Your task to perform on an android device: Go to location settings Image 0: 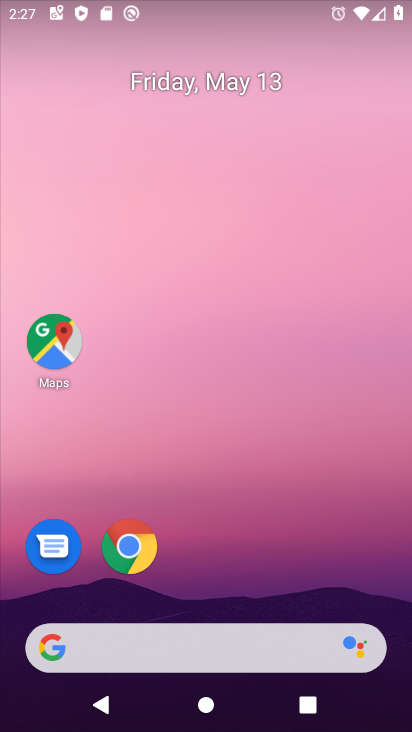
Step 0: drag from (273, 590) to (294, 115)
Your task to perform on an android device: Go to location settings Image 1: 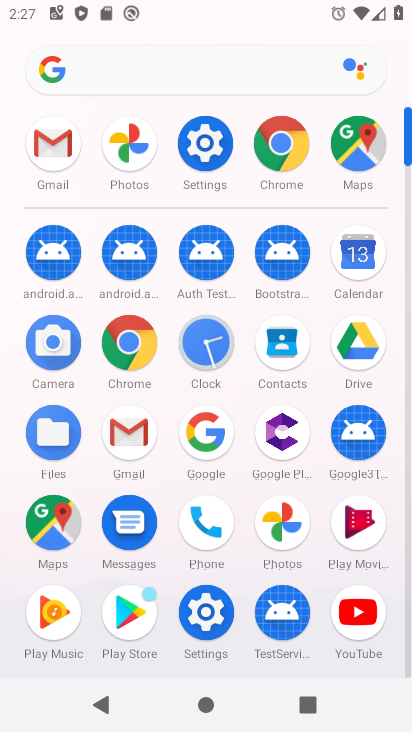
Step 1: click (196, 142)
Your task to perform on an android device: Go to location settings Image 2: 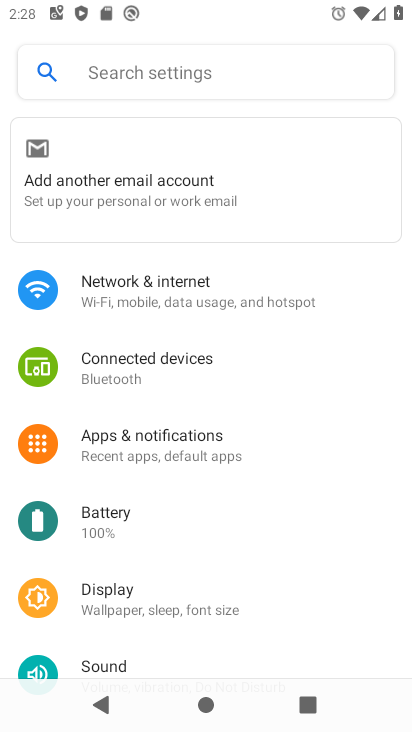
Step 2: drag from (171, 530) to (303, 188)
Your task to perform on an android device: Go to location settings Image 3: 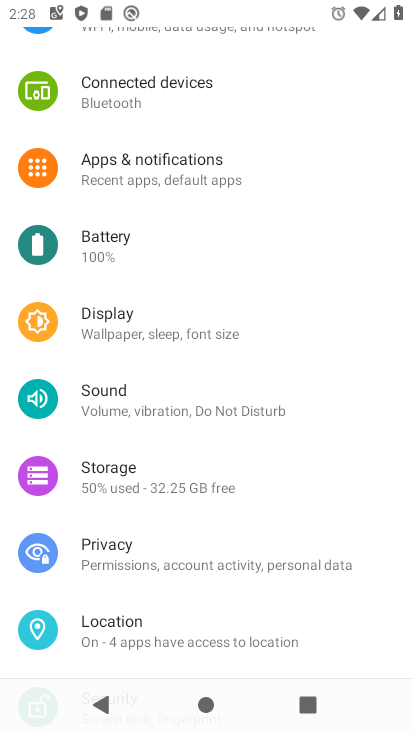
Step 3: drag from (207, 548) to (313, 223)
Your task to perform on an android device: Go to location settings Image 4: 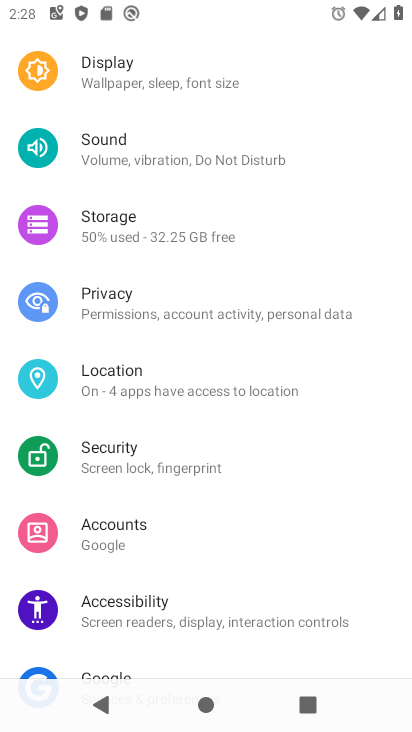
Step 4: click (149, 388)
Your task to perform on an android device: Go to location settings Image 5: 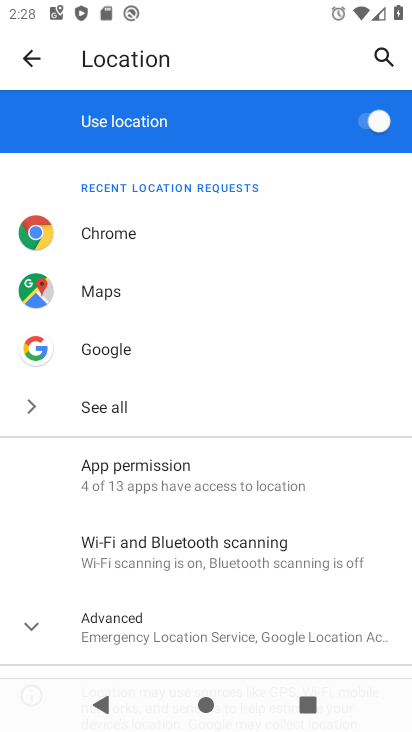
Step 5: task complete